Your task to perform on an android device: Open settings Image 0: 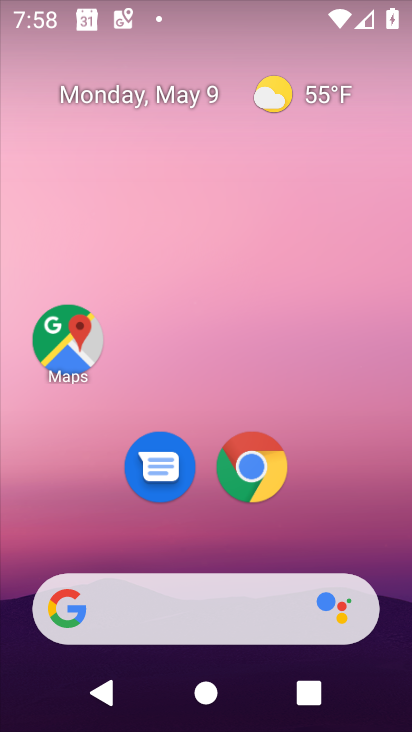
Step 0: drag from (369, 548) to (307, 10)
Your task to perform on an android device: Open settings Image 1: 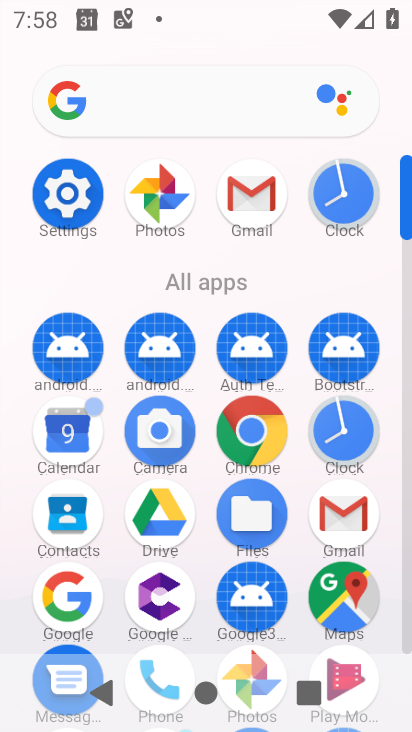
Step 1: click (78, 208)
Your task to perform on an android device: Open settings Image 2: 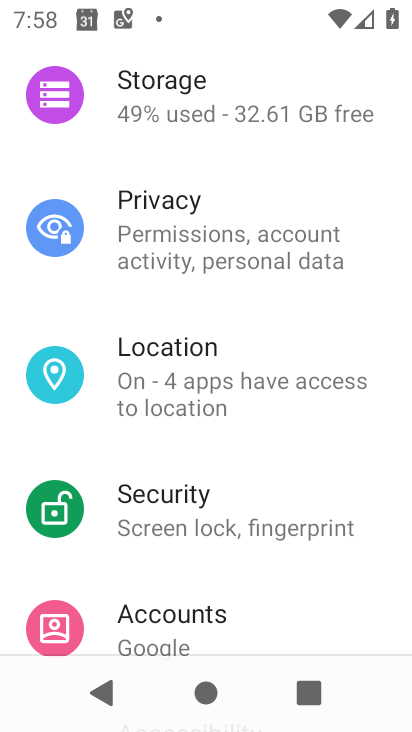
Step 2: task complete